Your task to perform on an android device: toggle improve location accuracy Image 0: 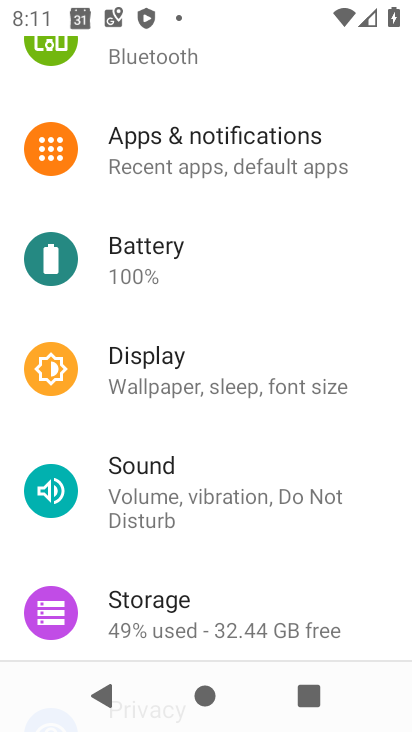
Step 0: drag from (368, 601) to (82, 177)
Your task to perform on an android device: toggle improve location accuracy Image 1: 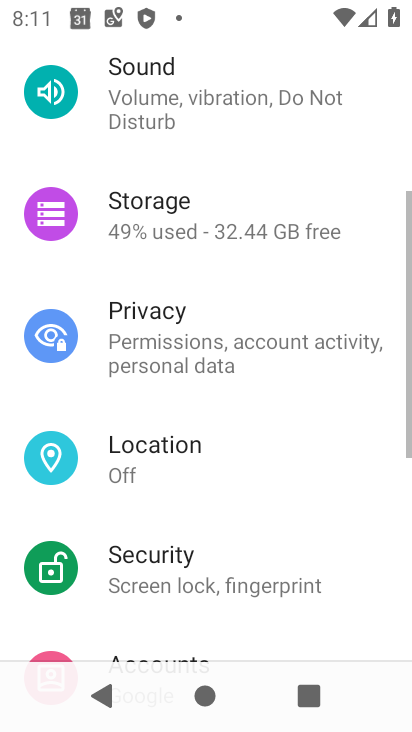
Step 1: drag from (311, 407) to (335, 283)
Your task to perform on an android device: toggle improve location accuracy Image 2: 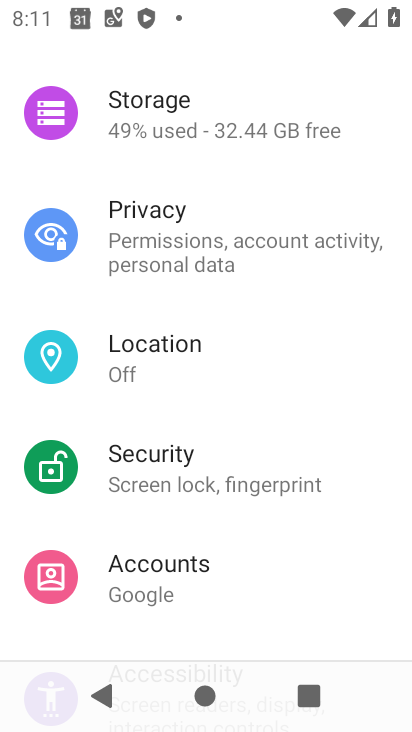
Step 2: click (190, 385)
Your task to perform on an android device: toggle improve location accuracy Image 3: 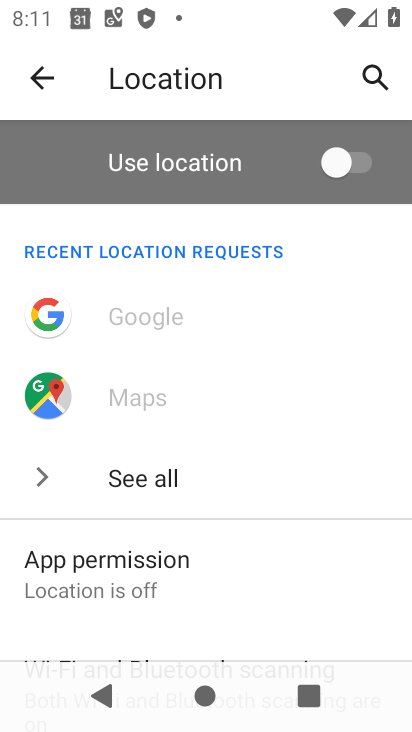
Step 3: drag from (247, 476) to (246, 363)
Your task to perform on an android device: toggle improve location accuracy Image 4: 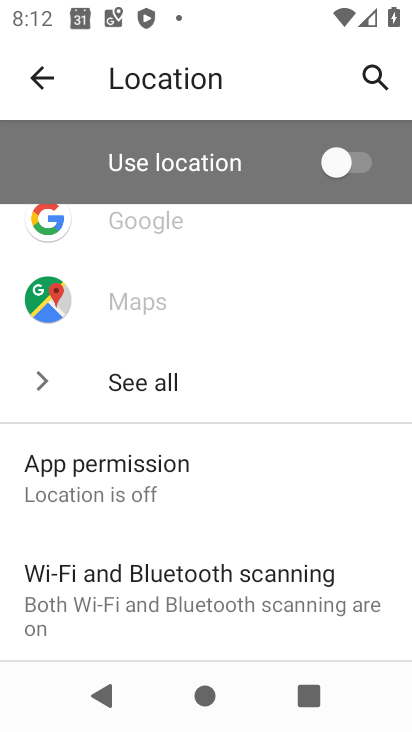
Step 4: drag from (251, 509) to (273, 383)
Your task to perform on an android device: toggle improve location accuracy Image 5: 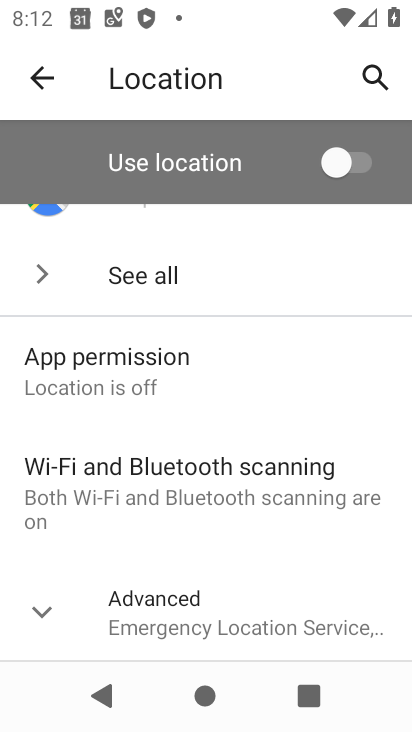
Step 5: drag from (248, 583) to (272, 448)
Your task to perform on an android device: toggle improve location accuracy Image 6: 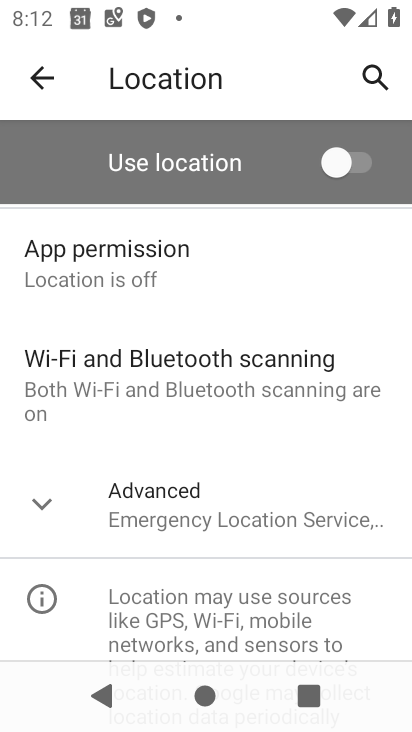
Step 6: click (245, 498)
Your task to perform on an android device: toggle improve location accuracy Image 7: 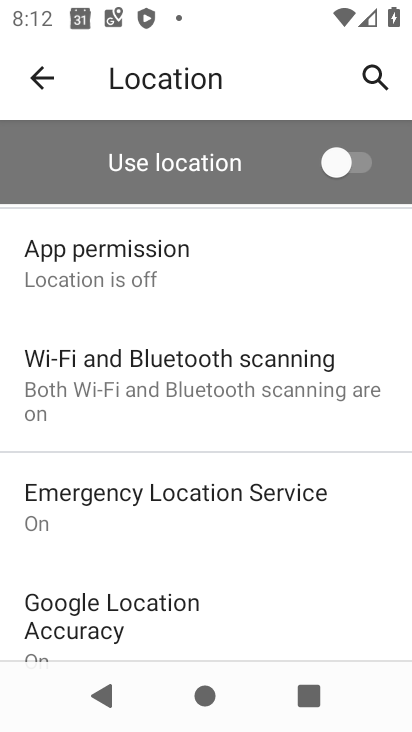
Step 7: drag from (242, 555) to (276, 412)
Your task to perform on an android device: toggle improve location accuracy Image 8: 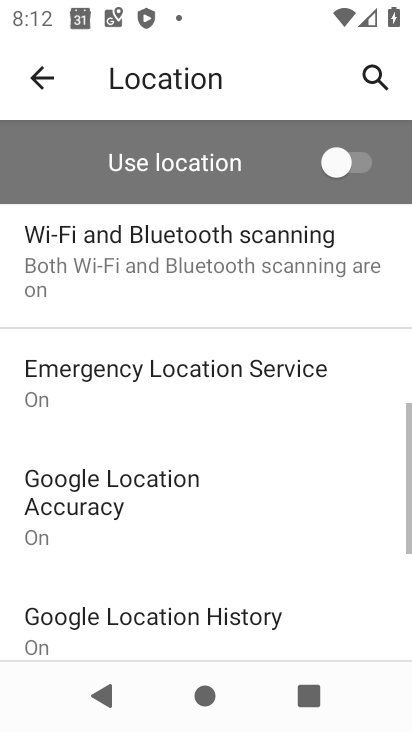
Step 8: drag from (285, 465) to (292, 406)
Your task to perform on an android device: toggle improve location accuracy Image 9: 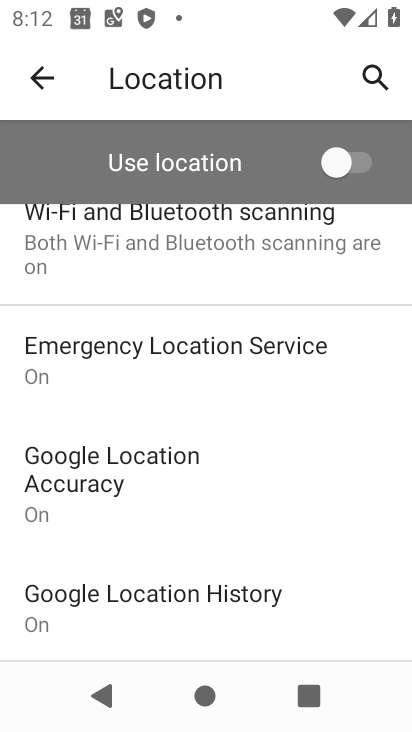
Step 9: click (171, 502)
Your task to perform on an android device: toggle improve location accuracy Image 10: 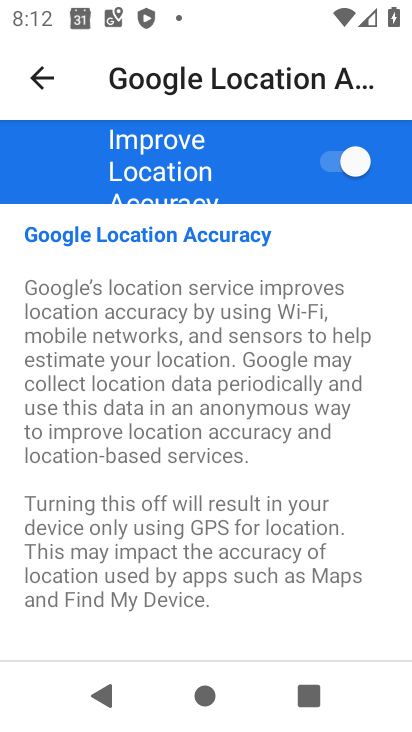
Step 10: click (344, 174)
Your task to perform on an android device: toggle improve location accuracy Image 11: 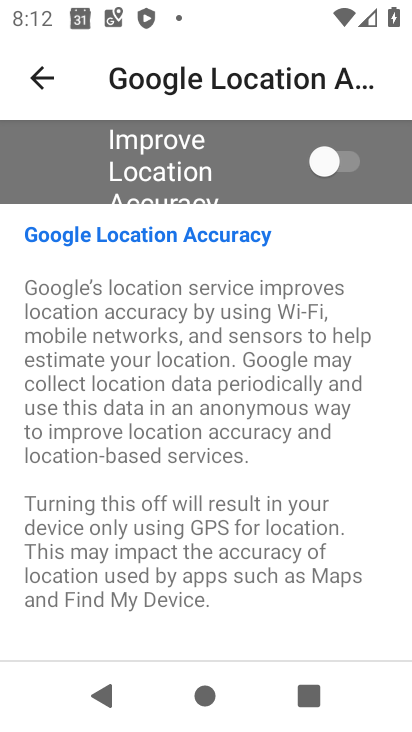
Step 11: task complete